Your task to perform on an android device: turn off javascript in the chrome app Image 0: 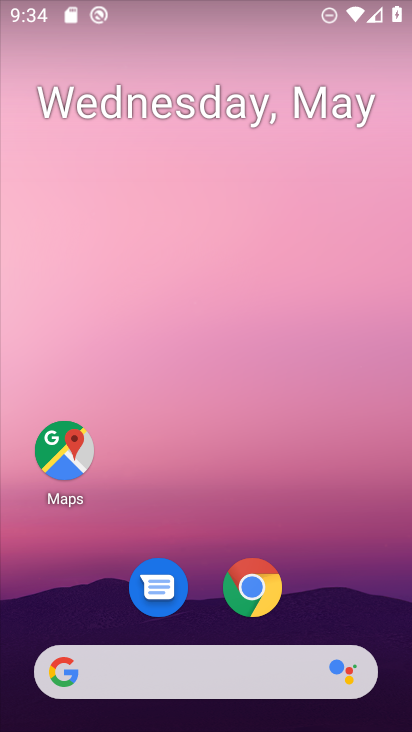
Step 0: click (247, 590)
Your task to perform on an android device: turn off javascript in the chrome app Image 1: 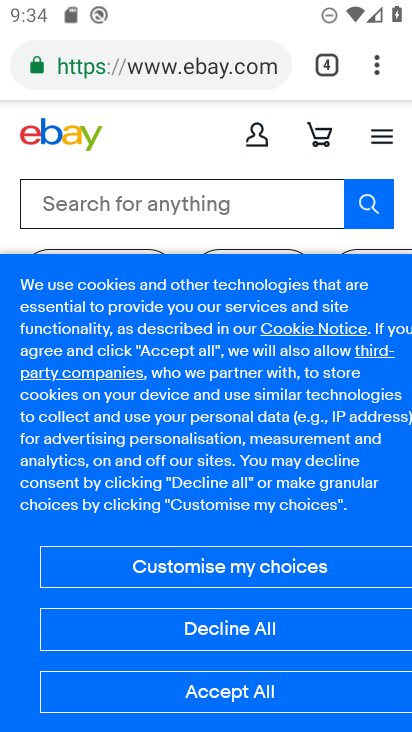
Step 1: click (375, 70)
Your task to perform on an android device: turn off javascript in the chrome app Image 2: 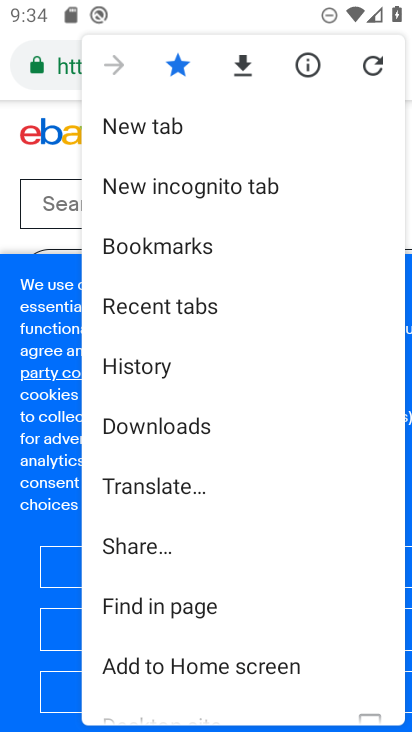
Step 2: drag from (166, 638) to (164, 236)
Your task to perform on an android device: turn off javascript in the chrome app Image 3: 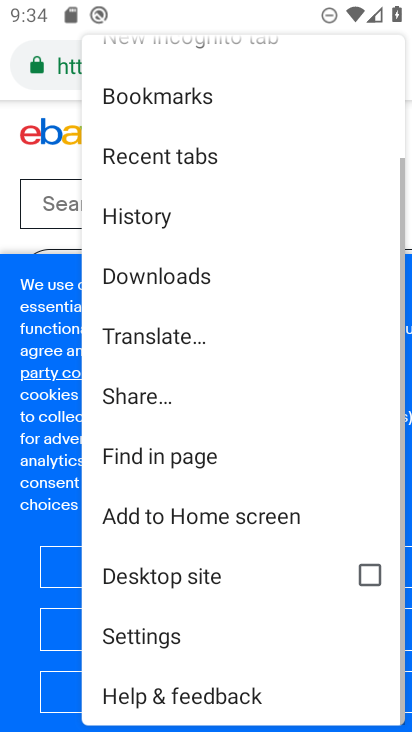
Step 3: click (159, 634)
Your task to perform on an android device: turn off javascript in the chrome app Image 4: 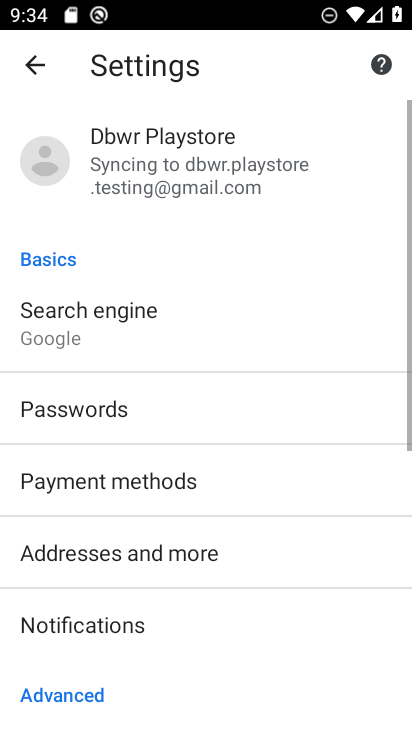
Step 4: drag from (124, 646) to (142, 239)
Your task to perform on an android device: turn off javascript in the chrome app Image 5: 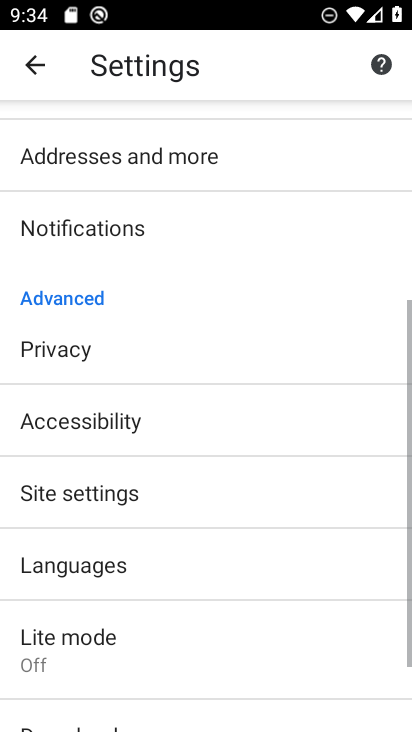
Step 5: click (78, 488)
Your task to perform on an android device: turn off javascript in the chrome app Image 6: 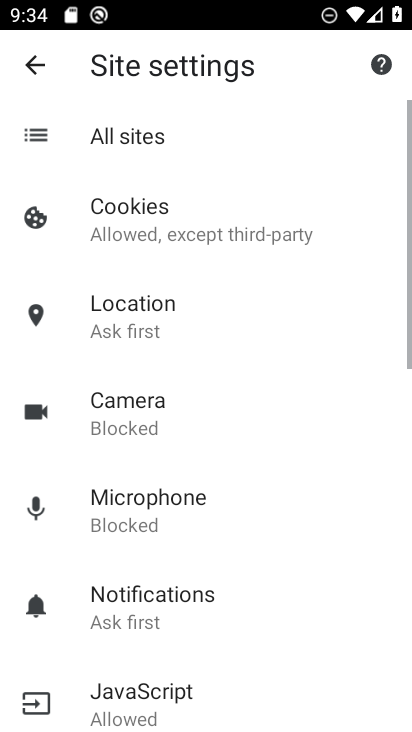
Step 6: drag from (143, 615) to (136, 363)
Your task to perform on an android device: turn off javascript in the chrome app Image 7: 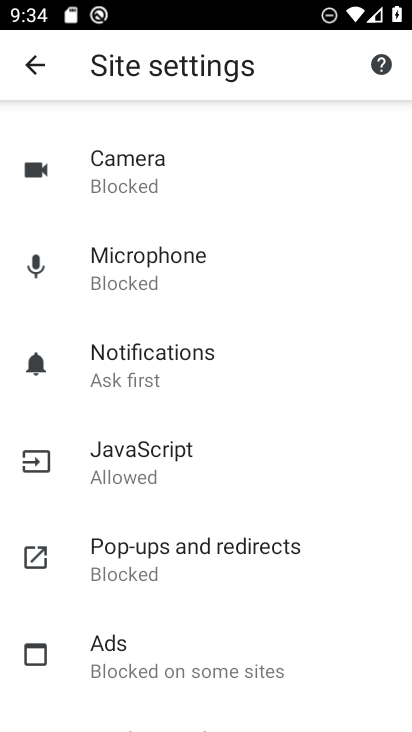
Step 7: click (146, 452)
Your task to perform on an android device: turn off javascript in the chrome app Image 8: 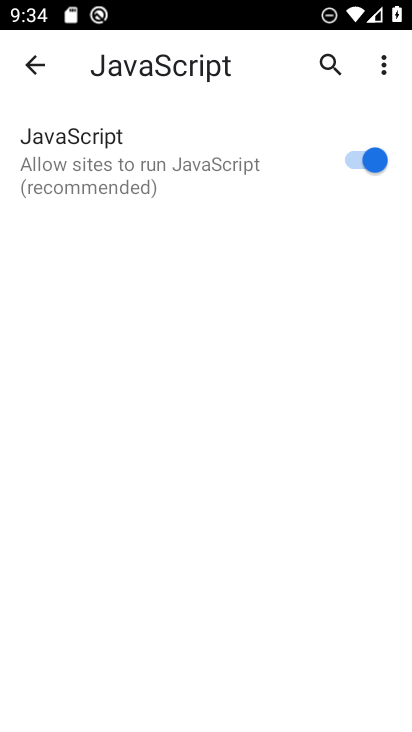
Step 8: click (349, 156)
Your task to perform on an android device: turn off javascript in the chrome app Image 9: 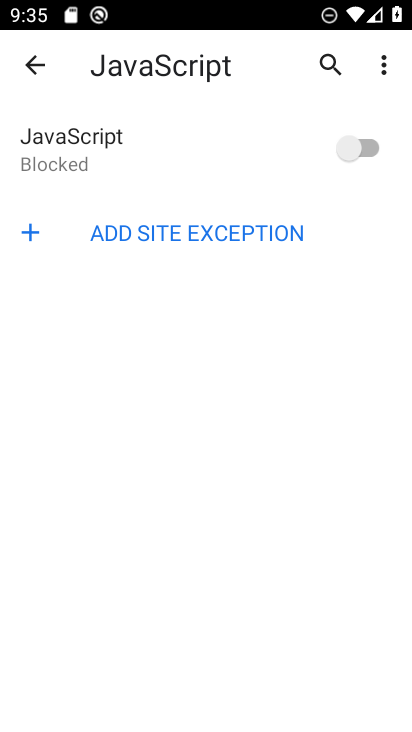
Step 9: task complete